Your task to perform on an android device: turn off notifications settings in the gmail app Image 0: 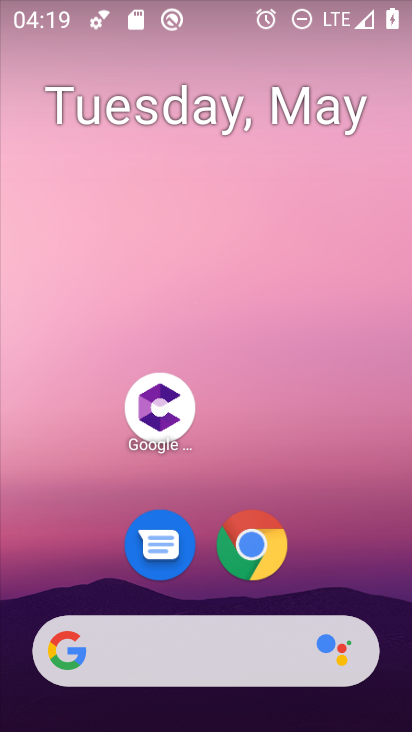
Step 0: drag from (373, 583) to (367, 244)
Your task to perform on an android device: turn off notifications settings in the gmail app Image 1: 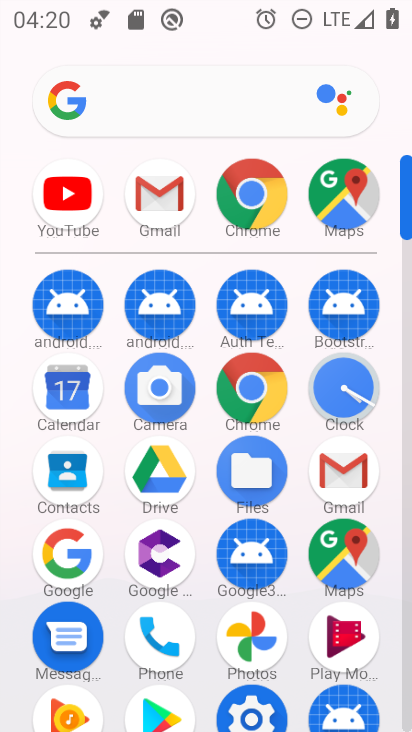
Step 1: click (367, 466)
Your task to perform on an android device: turn off notifications settings in the gmail app Image 2: 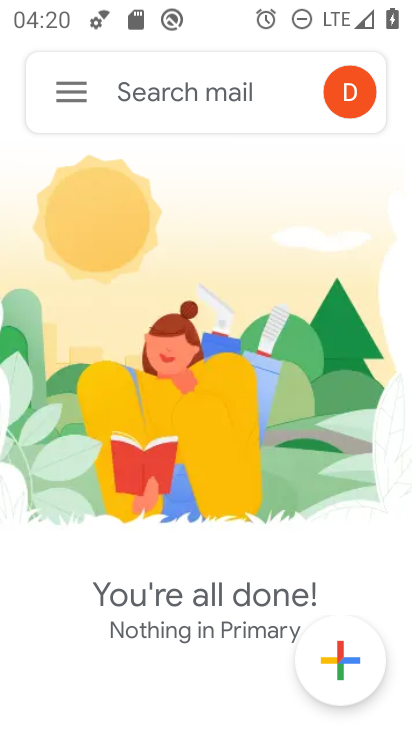
Step 2: click (76, 98)
Your task to perform on an android device: turn off notifications settings in the gmail app Image 3: 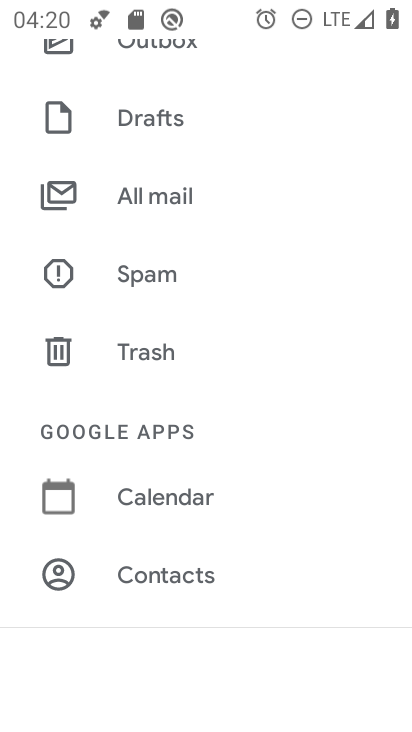
Step 3: drag from (357, 364) to (344, 436)
Your task to perform on an android device: turn off notifications settings in the gmail app Image 4: 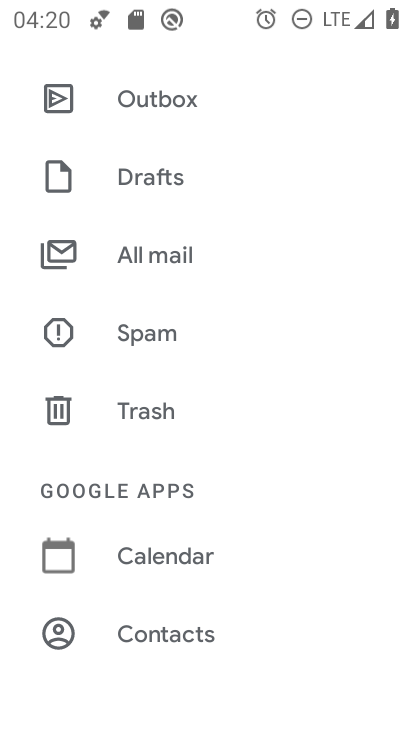
Step 4: drag from (361, 319) to (354, 439)
Your task to perform on an android device: turn off notifications settings in the gmail app Image 5: 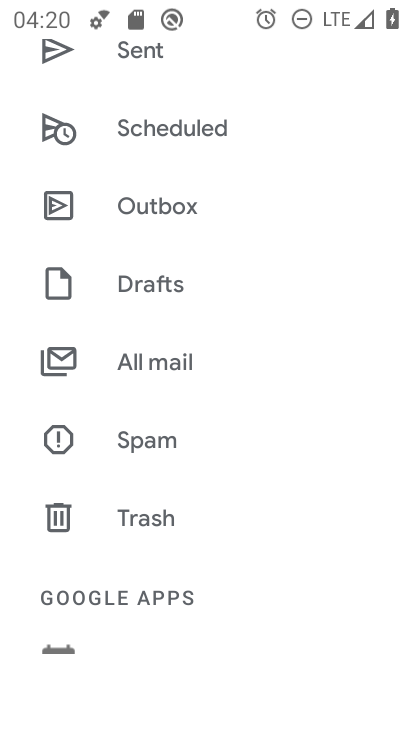
Step 5: drag from (349, 271) to (350, 371)
Your task to perform on an android device: turn off notifications settings in the gmail app Image 6: 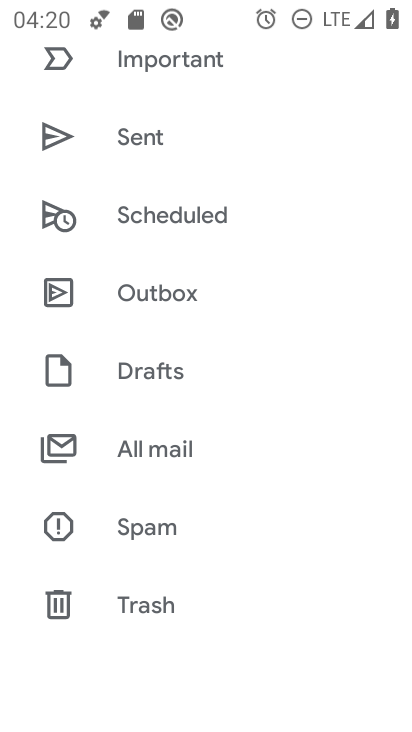
Step 6: drag from (345, 241) to (328, 361)
Your task to perform on an android device: turn off notifications settings in the gmail app Image 7: 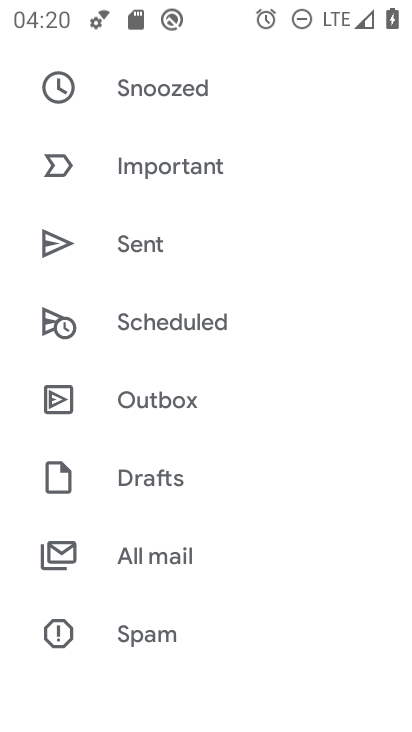
Step 7: drag from (330, 225) to (332, 320)
Your task to perform on an android device: turn off notifications settings in the gmail app Image 8: 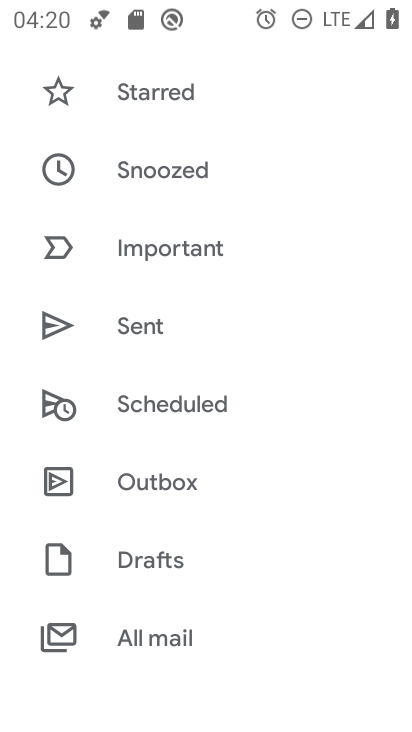
Step 8: drag from (327, 173) to (327, 267)
Your task to perform on an android device: turn off notifications settings in the gmail app Image 9: 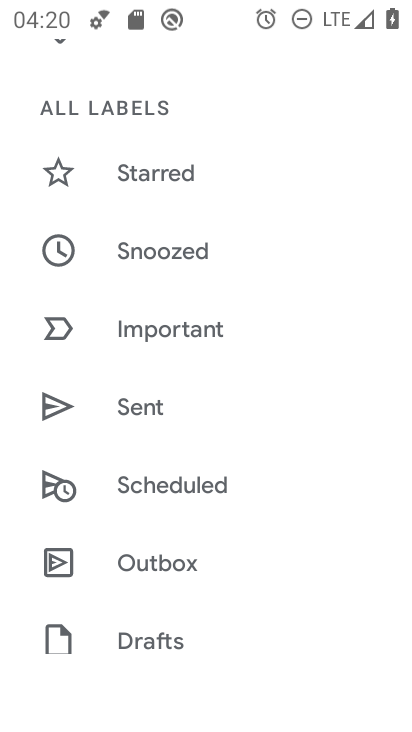
Step 9: drag from (335, 167) to (338, 273)
Your task to perform on an android device: turn off notifications settings in the gmail app Image 10: 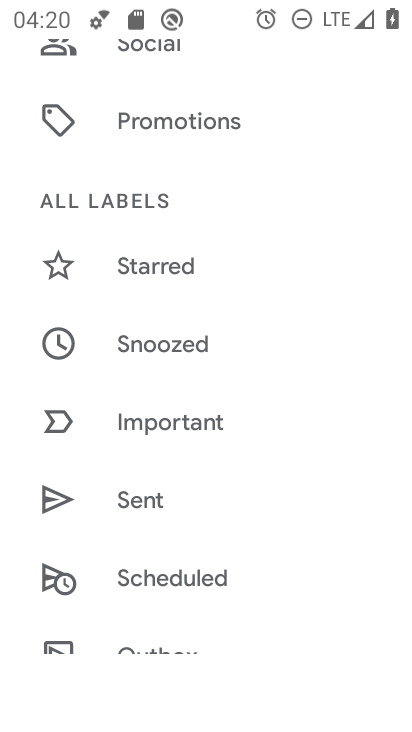
Step 10: drag from (339, 213) to (343, 309)
Your task to perform on an android device: turn off notifications settings in the gmail app Image 11: 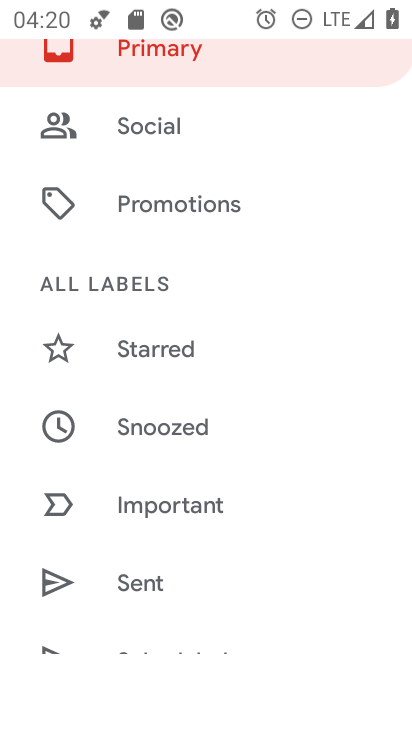
Step 11: drag from (325, 208) to (316, 353)
Your task to perform on an android device: turn off notifications settings in the gmail app Image 12: 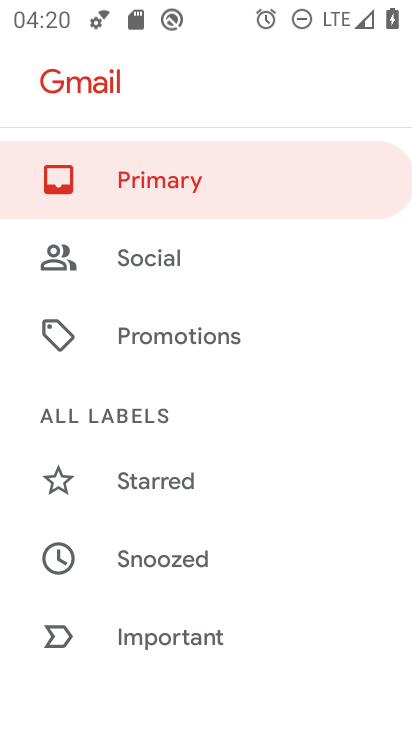
Step 12: drag from (291, 418) to (309, 302)
Your task to perform on an android device: turn off notifications settings in the gmail app Image 13: 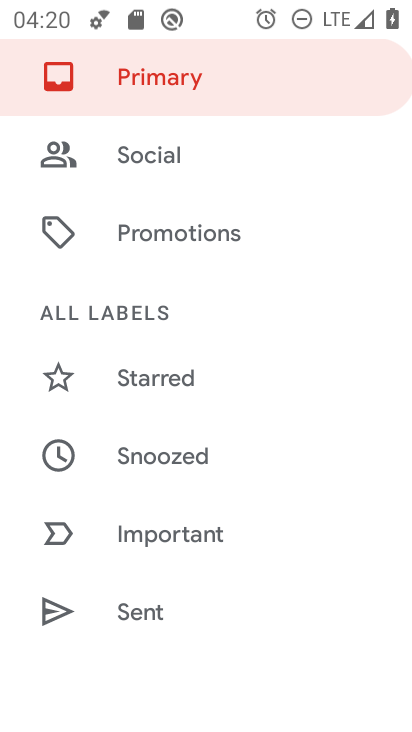
Step 13: drag from (288, 421) to (301, 350)
Your task to perform on an android device: turn off notifications settings in the gmail app Image 14: 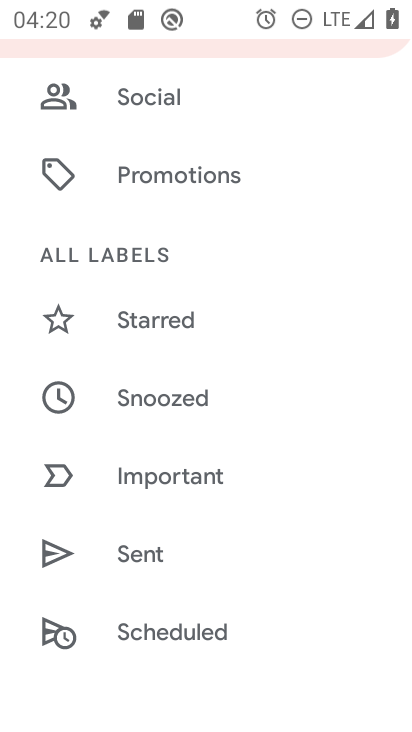
Step 14: drag from (276, 446) to (288, 341)
Your task to perform on an android device: turn off notifications settings in the gmail app Image 15: 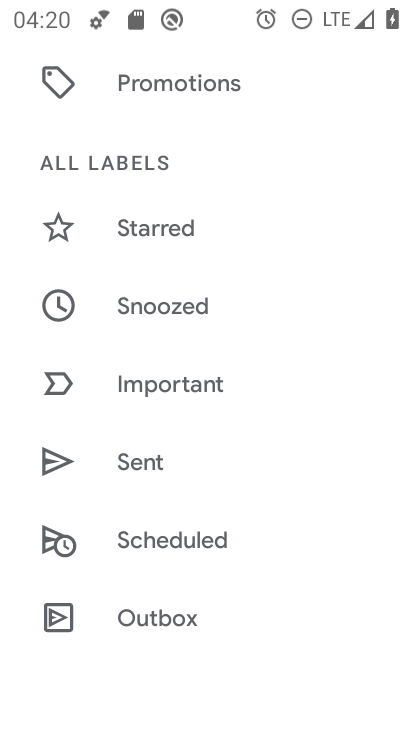
Step 15: drag from (294, 476) to (304, 391)
Your task to perform on an android device: turn off notifications settings in the gmail app Image 16: 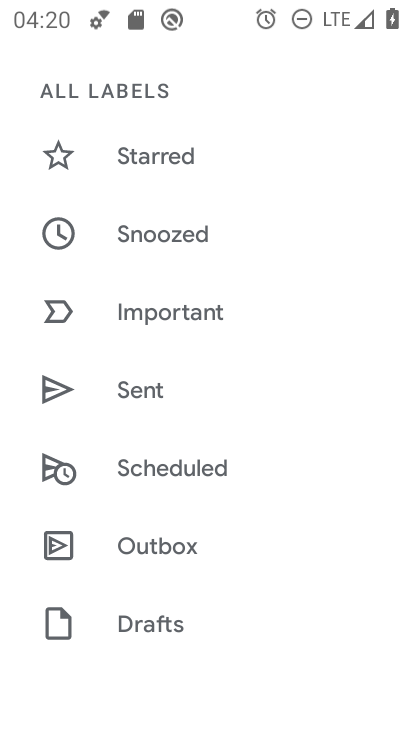
Step 16: drag from (286, 535) to (295, 419)
Your task to perform on an android device: turn off notifications settings in the gmail app Image 17: 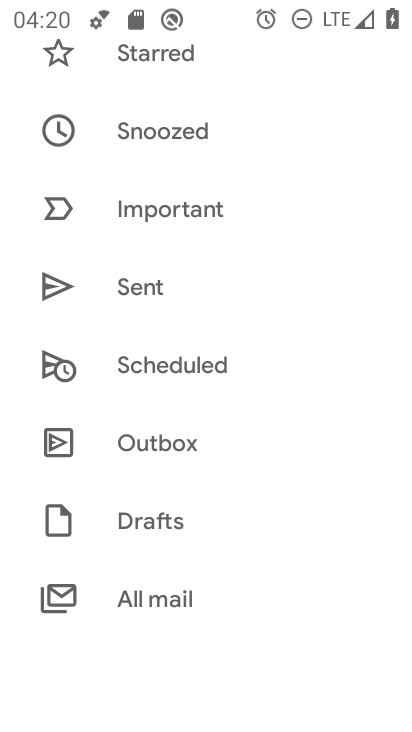
Step 17: drag from (290, 582) to (313, 470)
Your task to perform on an android device: turn off notifications settings in the gmail app Image 18: 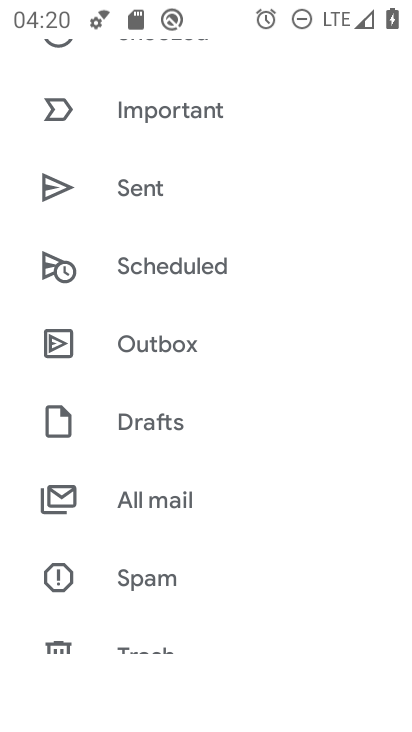
Step 18: drag from (306, 598) to (320, 478)
Your task to perform on an android device: turn off notifications settings in the gmail app Image 19: 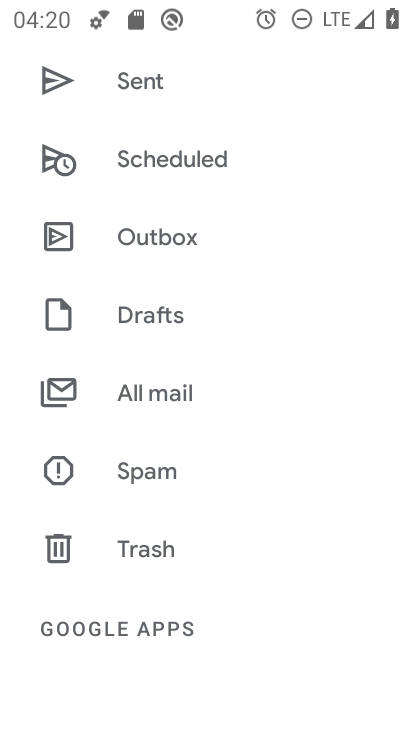
Step 19: drag from (302, 588) to (309, 474)
Your task to perform on an android device: turn off notifications settings in the gmail app Image 20: 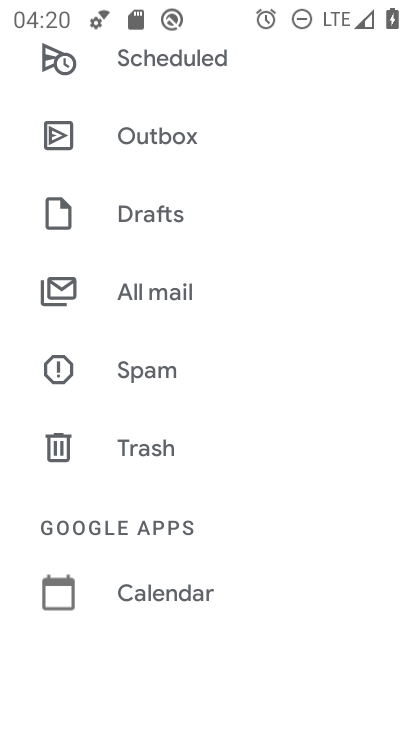
Step 20: drag from (284, 566) to (281, 428)
Your task to perform on an android device: turn off notifications settings in the gmail app Image 21: 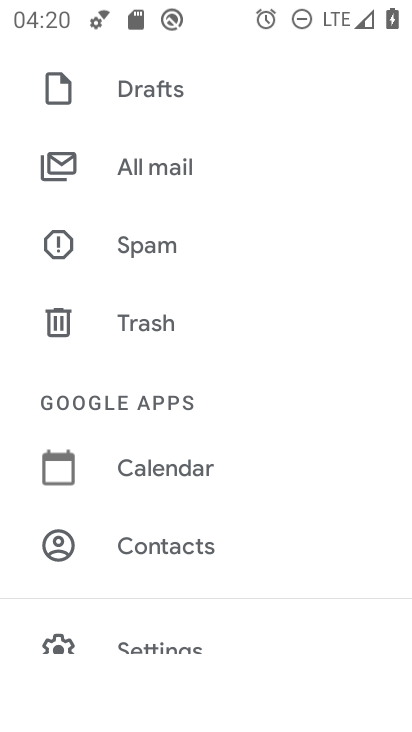
Step 21: drag from (302, 581) to (315, 423)
Your task to perform on an android device: turn off notifications settings in the gmail app Image 22: 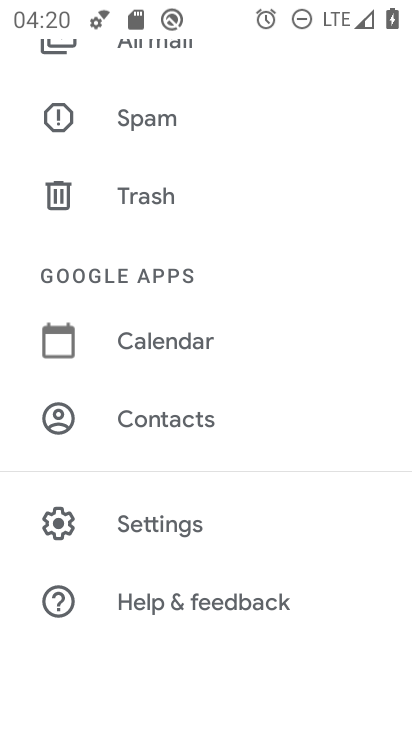
Step 22: drag from (311, 648) to (325, 468)
Your task to perform on an android device: turn off notifications settings in the gmail app Image 23: 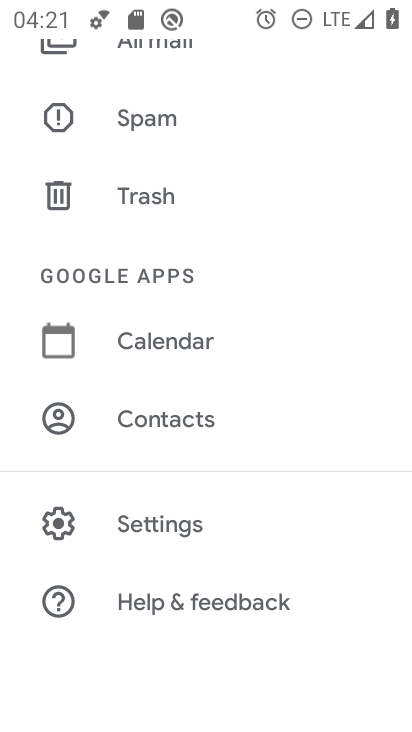
Step 23: click (179, 525)
Your task to perform on an android device: turn off notifications settings in the gmail app Image 24: 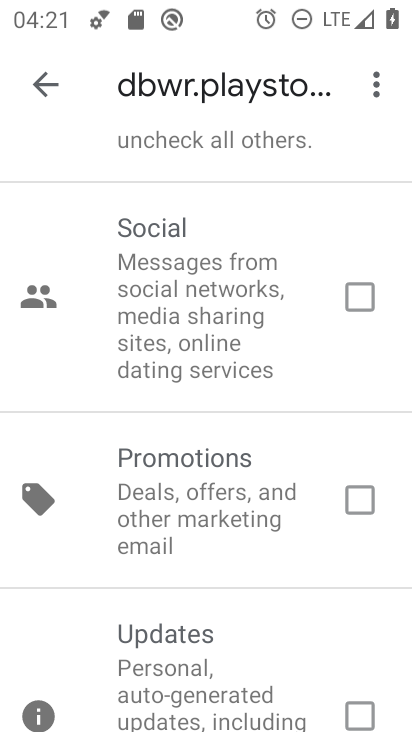
Step 24: drag from (283, 611) to (310, 476)
Your task to perform on an android device: turn off notifications settings in the gmail app Image 25: 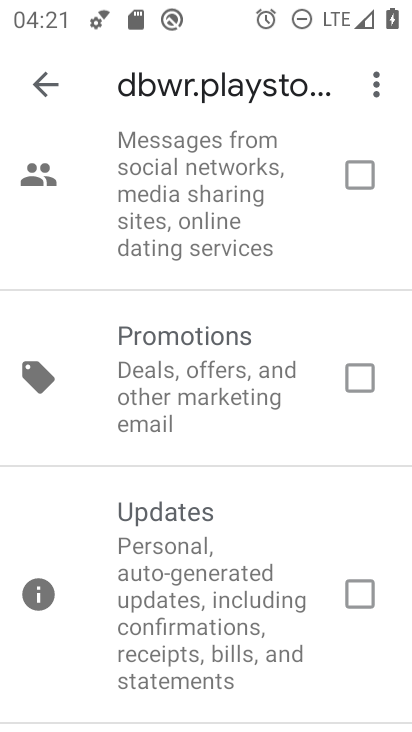
Step 25: click (37, 88)
Your task to perform on an android device: turn off notifications settings in the gmail app Image 26: 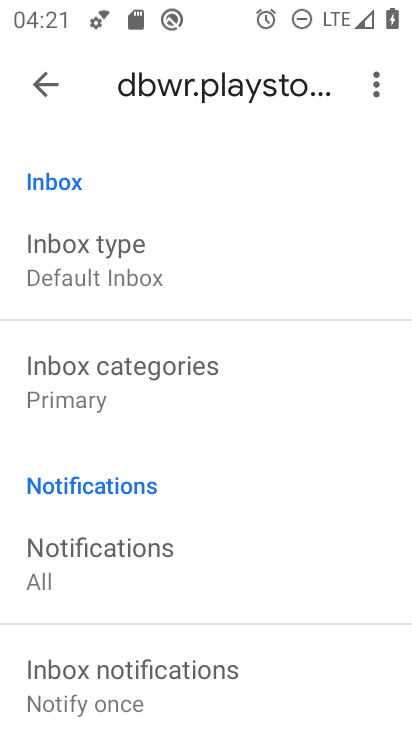
Step 26: drag from (282, 531) to (288, 468)
Your task to perform on an android device: turn off notifications settings in the gmail app Image 27: 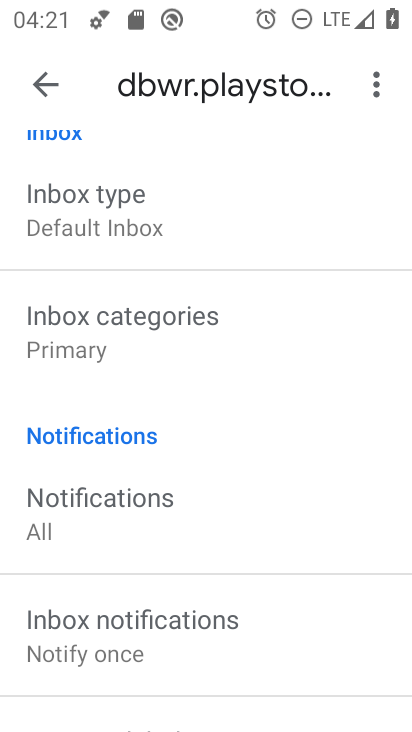
Step 27: drag from (293, 607) to (303, 523)
Your task to perform on an android device: turn off notifications settings in the gmail app Image 28: 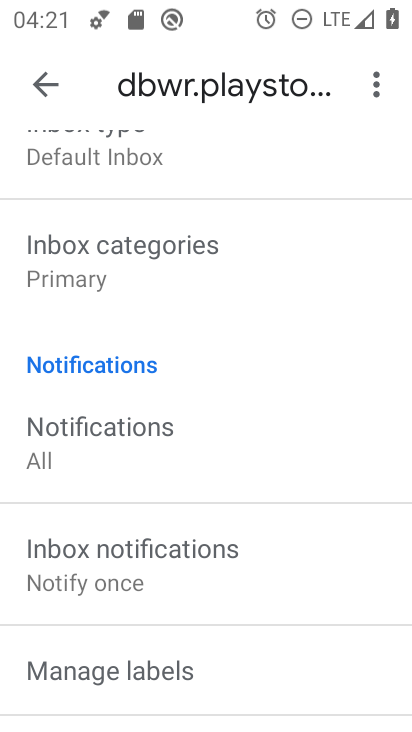
Step 28: drag from (279, 621) to (294, 492)
Your task to perform on an android device: turn off notifications settings in the gmail app Image 29: 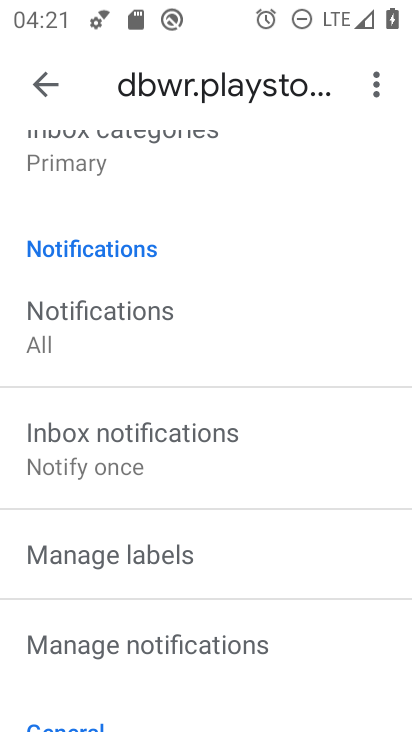
Step 29: drag from (284, 648) to (285, 503)
Your task to perform on an android device: turn off notifications settings in the gmail app Image 30: 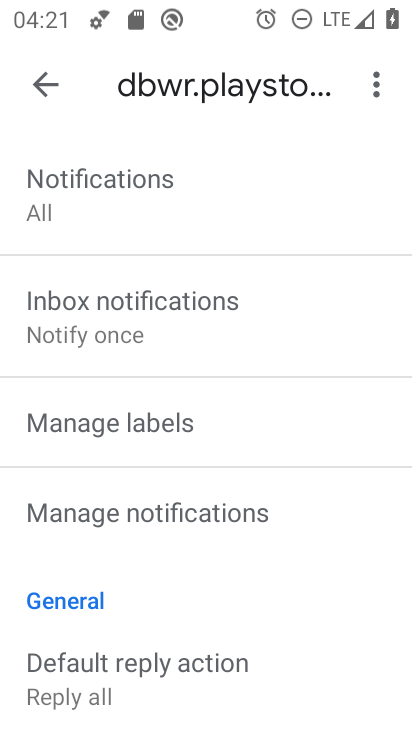
Step 30: drag from (276, 653) to (295, 536)
Your task to perform on an android device: turn off notifications settings in the gmail app Image 31: 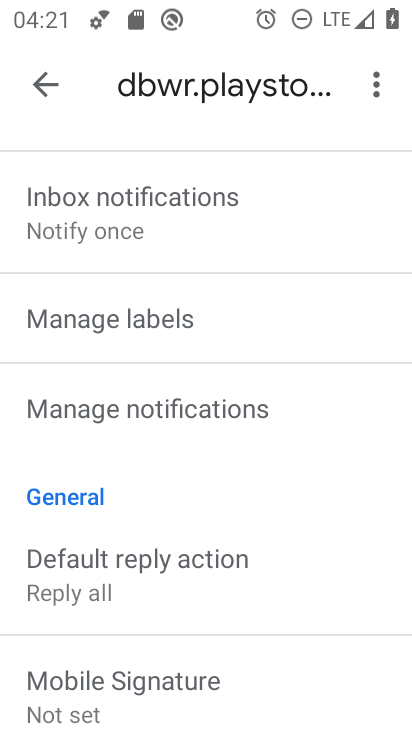
Step 31: click (244, 405)
Your task to perform on an android device: turn off notifications settings in the gmail app Image 32: 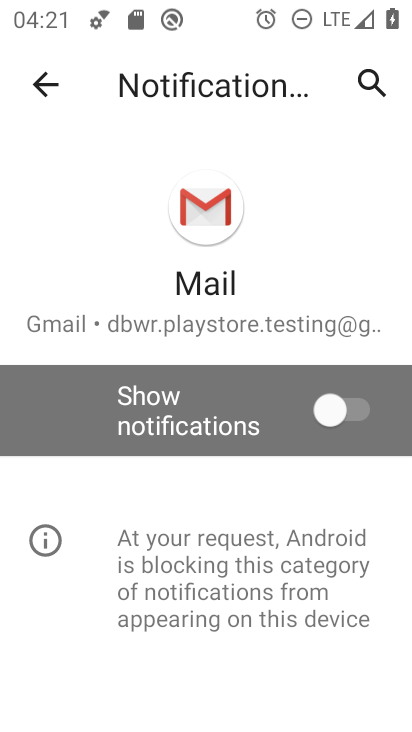
Step 32: task complete